Your task to perform on an android device: change notification settings in the gmail app Image 0: 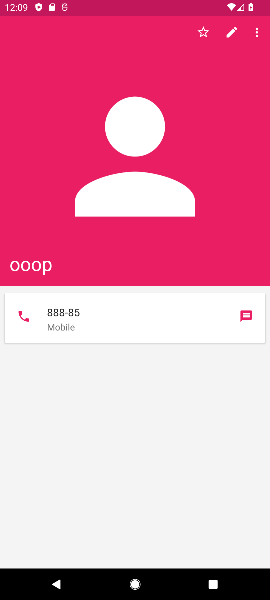
Step 0: press home button
Your task to perform on an android device: change notification settings in the gmail app Image 1: 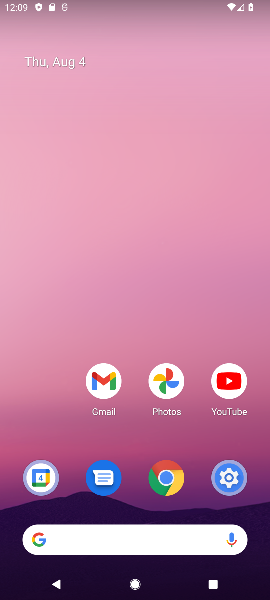
Step 1: drag from (204, 499) to (179, 456)
Your task to perform on an android device: change notification settings in the gmail app Image 2: 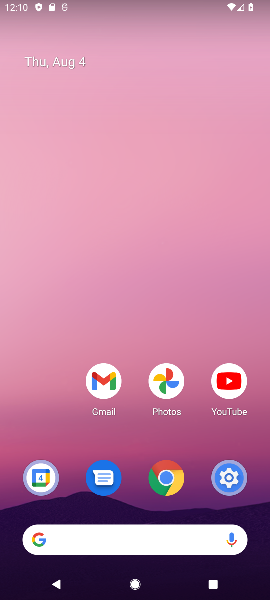
Step 2: click (99, 370)
Your task to perform on an android device: change notification settings in the gmail app Image 3: 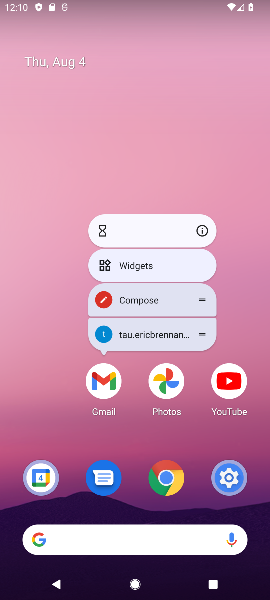
Step 3: click (203, 228)
Your task to perform on an android device: change notification settings in the gmail app Image 4: 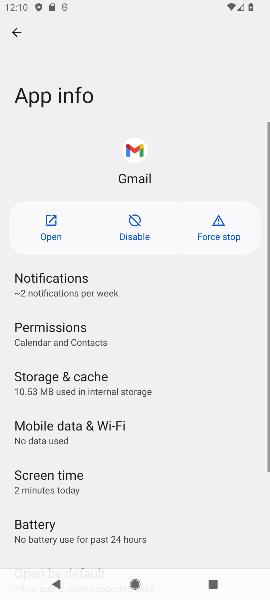
Step 4: click (92, 289)
Your task to perform on an android device: change notification settings in the gmail app Image 5: 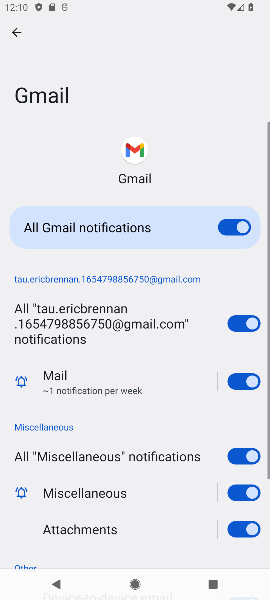
Step 5: click (226, 224)
Your task to perform on an android device: change notification settings in the gmail app Image 6: 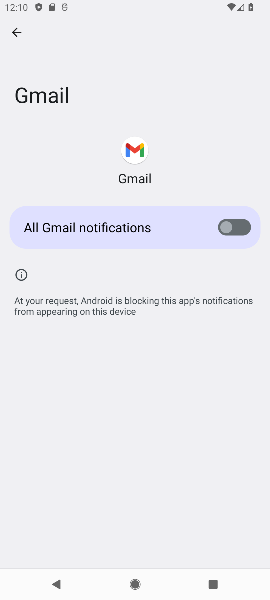
Step 6: task complete